Your task to perform on an android device: Empty the shopping cart on newegg.com. Search for "usb-b" on newegg.com, select the first entry, add it to the cart, then select checkout. Image 0: 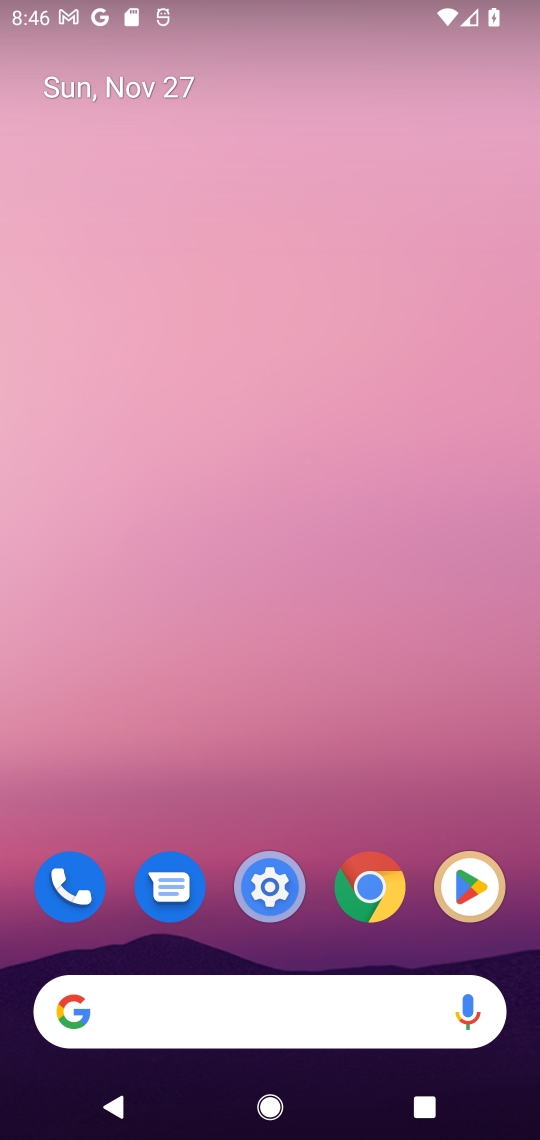
Step 0: press home button
Your task to perform on an android device: Empty the shopping cart on newegg.com. Search for "usb-b" on newegg.com, select the first entry, add it to the cart, then select checkout. Image 1: 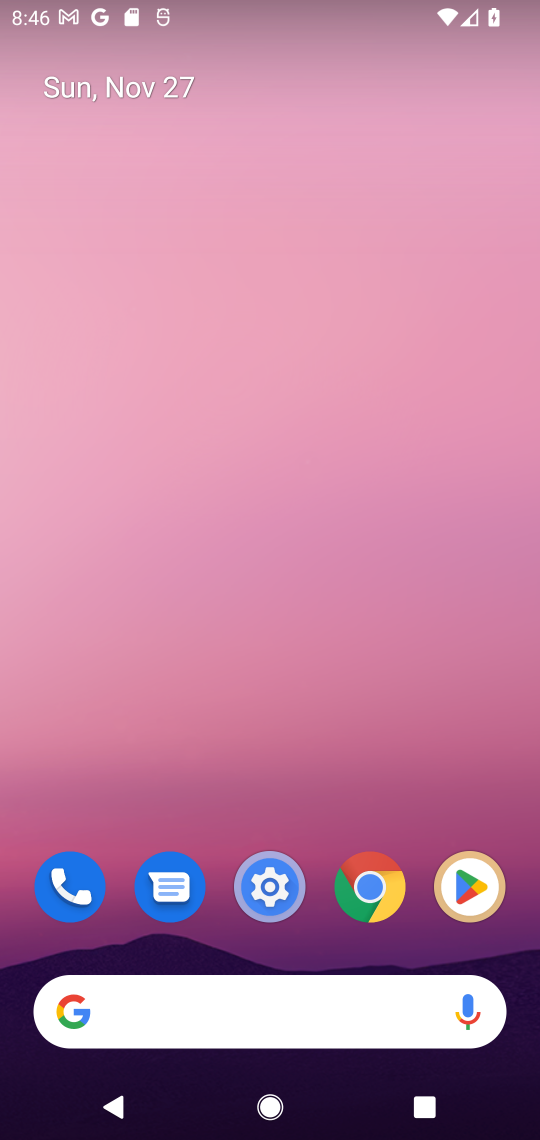
Step 1: click (226, 1011)
Your task to perform on an android device: Empty the shopping cart on newegg.com. Search for "usb-b" on newegg.com, select the first entry, add it to the cart, then select checkout. Image 2: 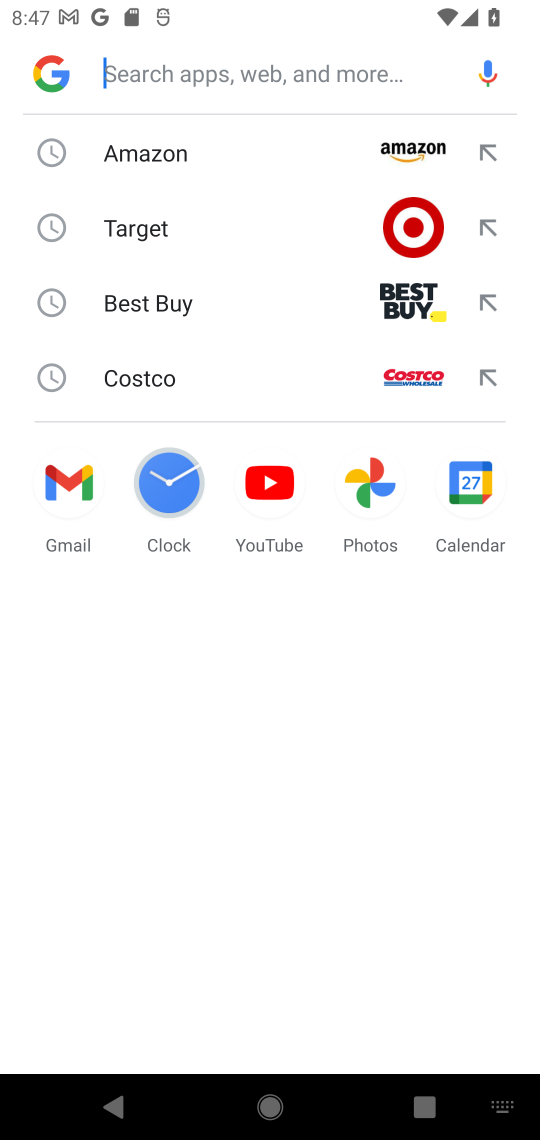
Step 2: type "newegg.com"
Your task to perform on an android device: Empty the shopping cart on newegg.com. Search for "usb-b" on newegg.com, select the first entry, add it to the cart, then select checkout. Image 3: 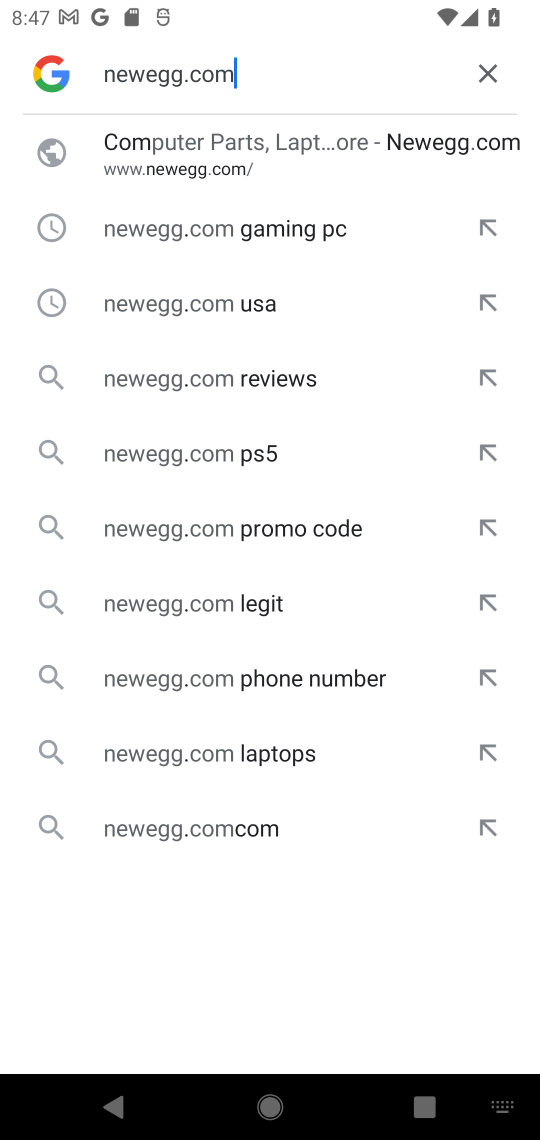
Step 3: click (143, 138)
Your task to perform on an android device: Empty the shopping cart on newegg.com. Search for "usb-b" on newegg.com, select the first entry, add it to the cart, then select checkout. Image 4: 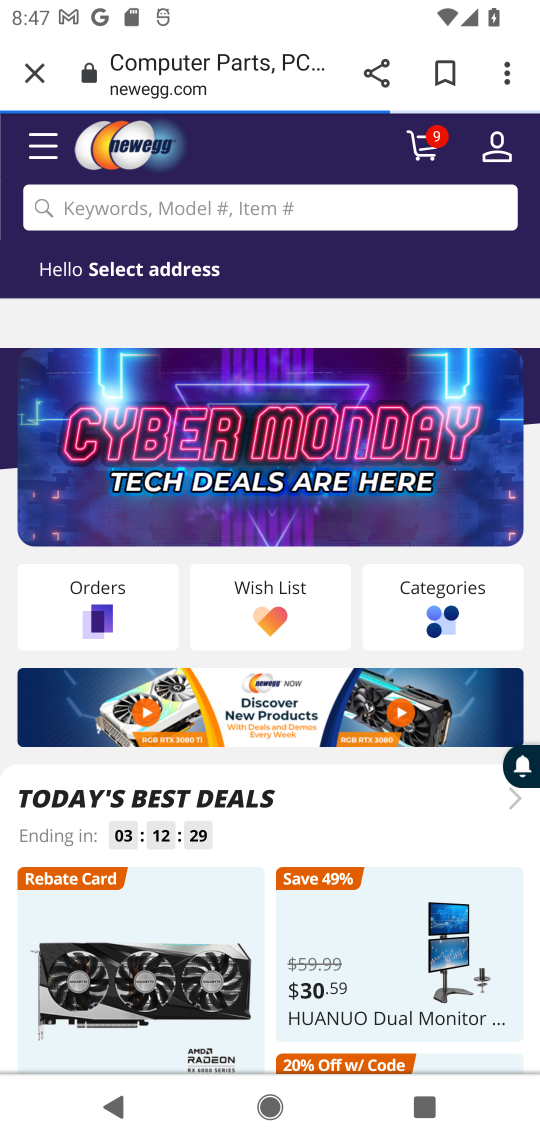
Step 4: click (182, 222)
Your task to perform on an android device: Empty the shopping cart on newegg.com. Search for "usb-b" on newegg.com, select the first entry, add it to the cart, then select checkout. Image 5: 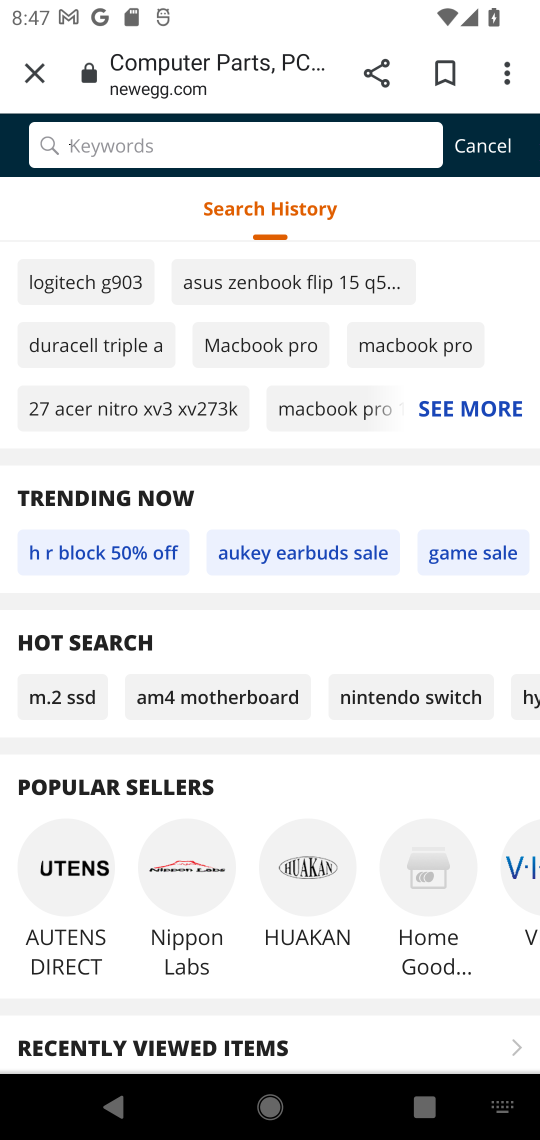
Step 5: type "usb-b"
Your task to perform on an android device: Empty the shopping cart on newegg.com. Search for "usb-b" on newegg.com, select the first entry, add it to the cart, then select checkout. Image 6: 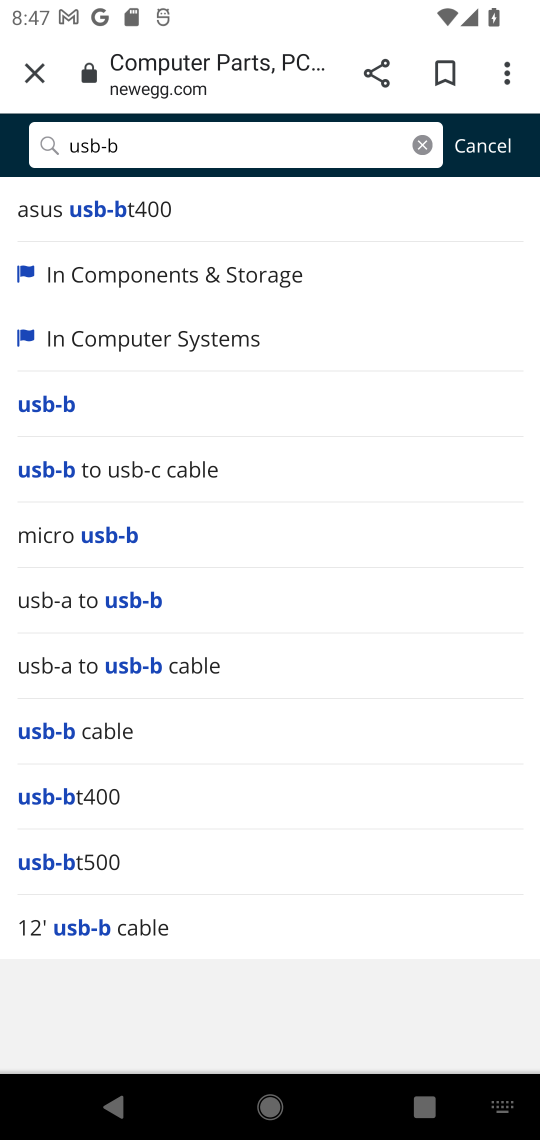
Step 6: click (131, 226)
Your task to perform on an android device: Empty the shopping cart on newegg.com. Search for "usb-b" on newegg.com, select the first entry, add it to the cart, then select checkout. Image 7: 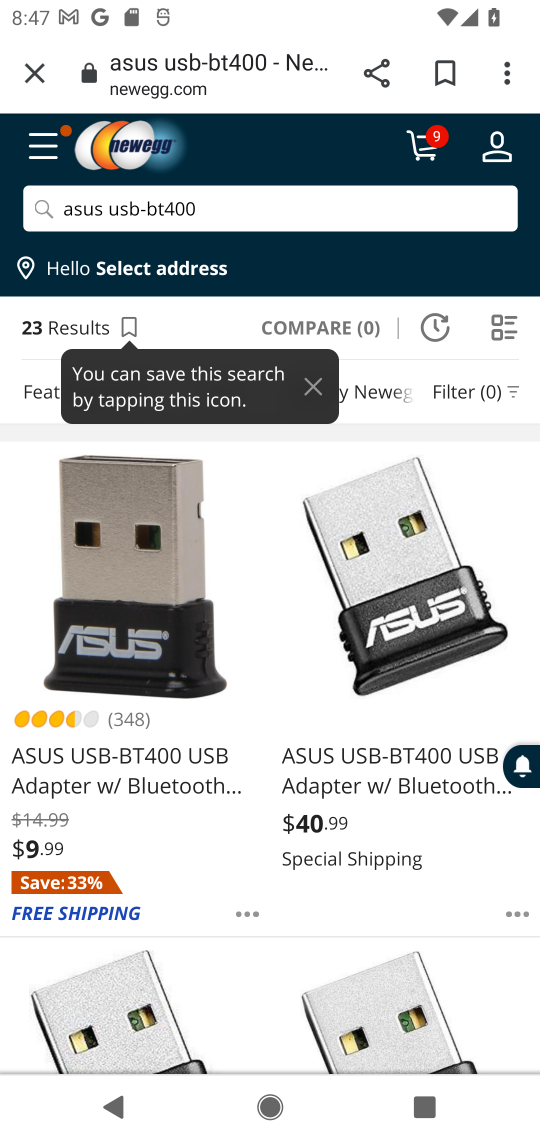
Step 7: click (128, 680)
Your task to perform on an android device: Empty the shopping cart on newegg.com. Search for "usb-b" on newegg.com, select the first entry, add it to the cart, then select checkout. Image 8: 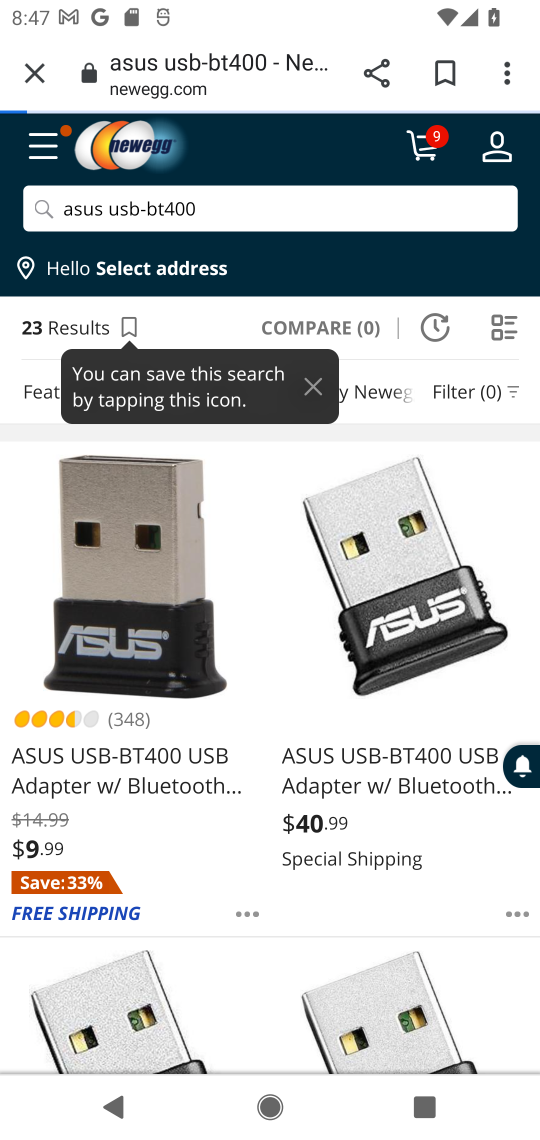
Step 8: task complete